Your task to perform on an android device: Turn on the flashlight Image 0: 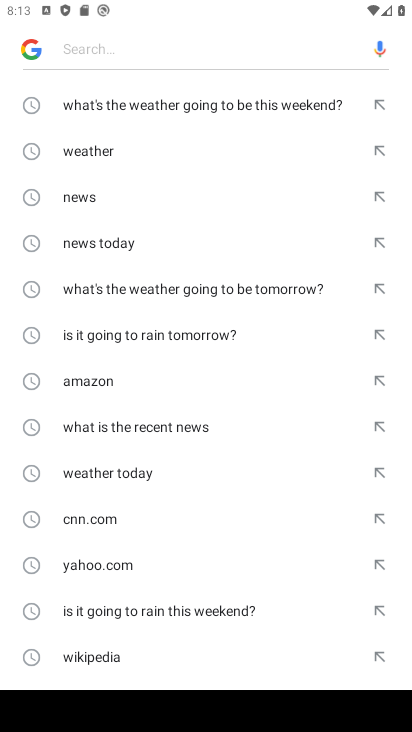
Step 0: press home button
Your task to perform on an android device: Turn on the flashlight Image 1: 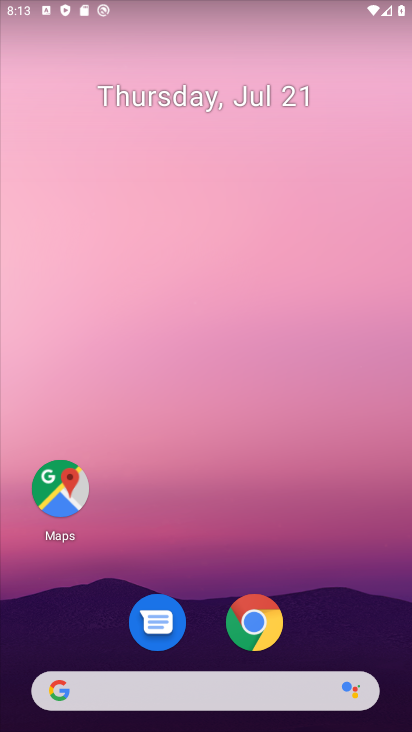
Step 1: task complete